Your task to perform on an android device: Open Google Chrome Image 0: 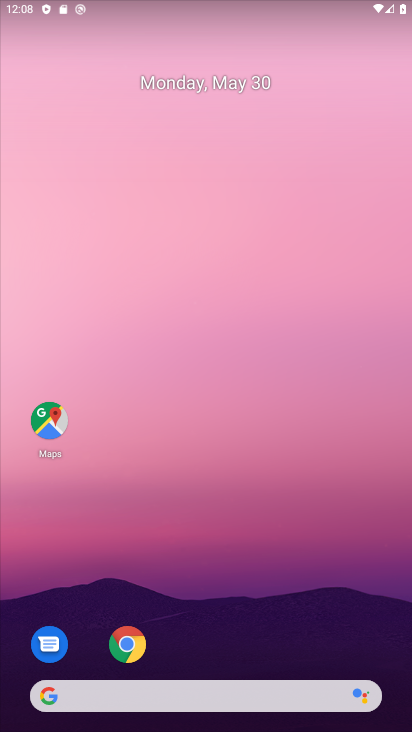
Step 0: click (121, 650)
Your task to perform on an android device: Open Google Chrome Image 1: 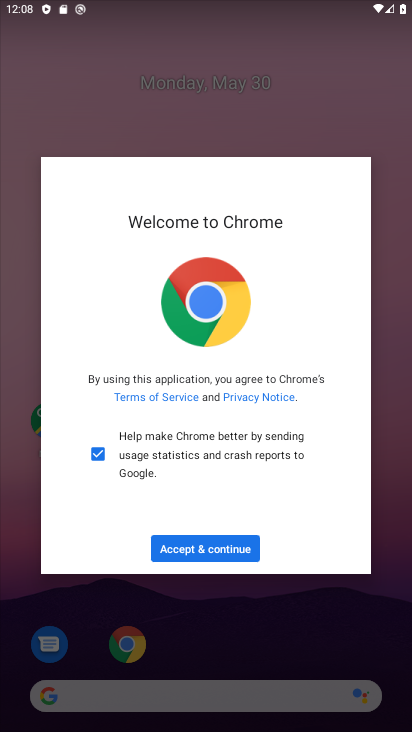
Step 1: click (215, 550)
Your task to perform on an android device: Open Google Chrome Image 2: 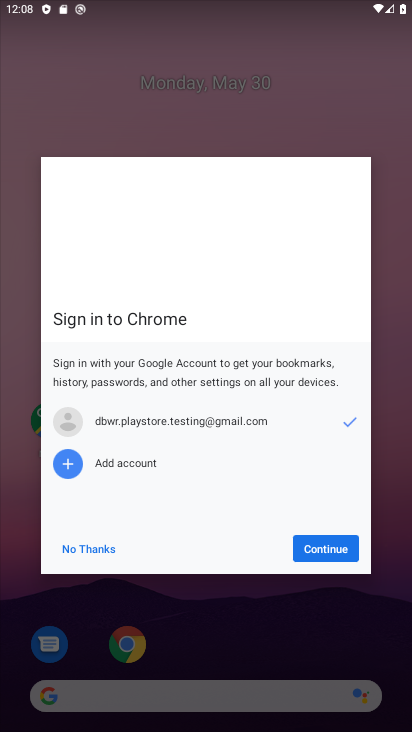
Step 2: click (324, 553)
Your task to perform on an android device: Open Google Chrome Image 3: 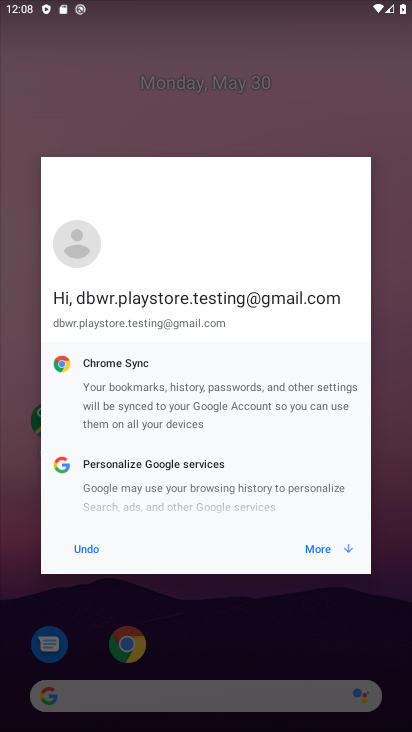
Step 3: click (324, 553)
Your task to perform on an android device: Open Google Chrome Image 4: 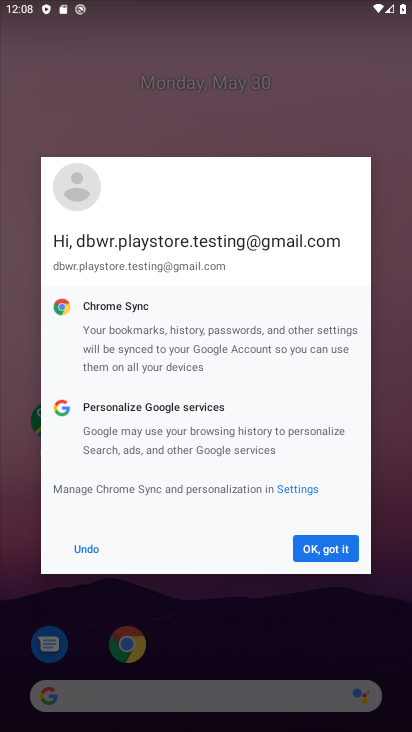
Step 4: click (324, 552)
Your task to perform on an android device: Open Google Chrome Image 5: 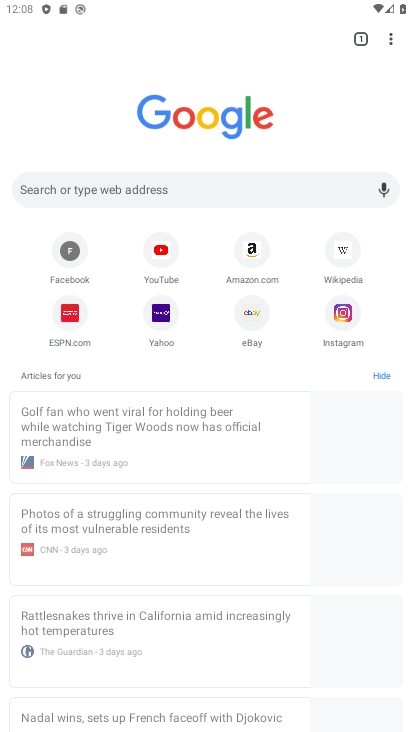
Step 5: task complete